Your task to perform on an android device: manage bookmarks in the chrome app Image 0: 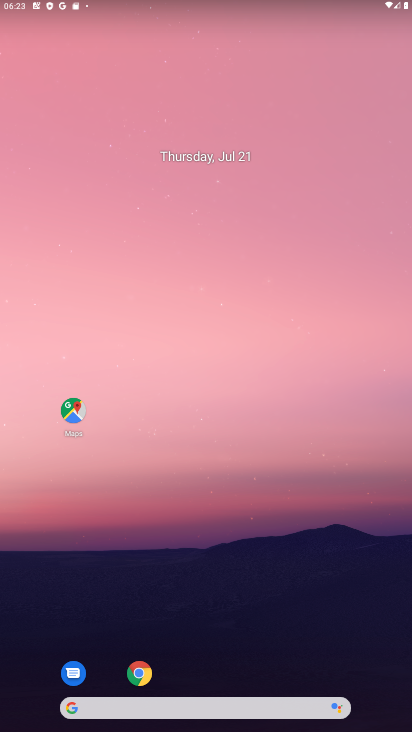
Step 0: click (130, 679)
Your task to perform on an android device: manage bookmarks in the chrome app Image 1: 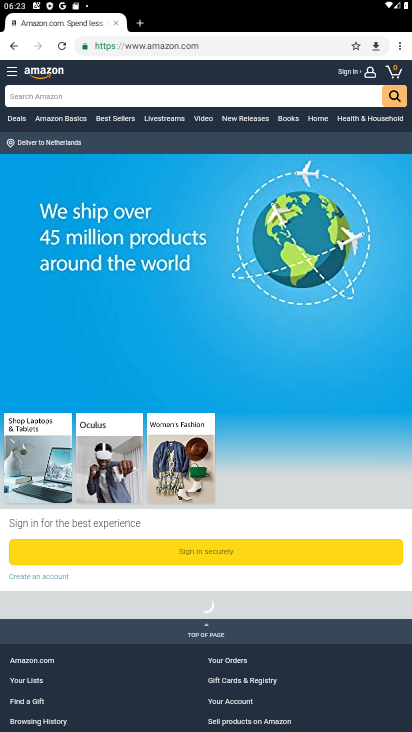
Step 1: click (399, 42)
Your task to perform on an android device: manage bookmarks in the chrome app Image 2: 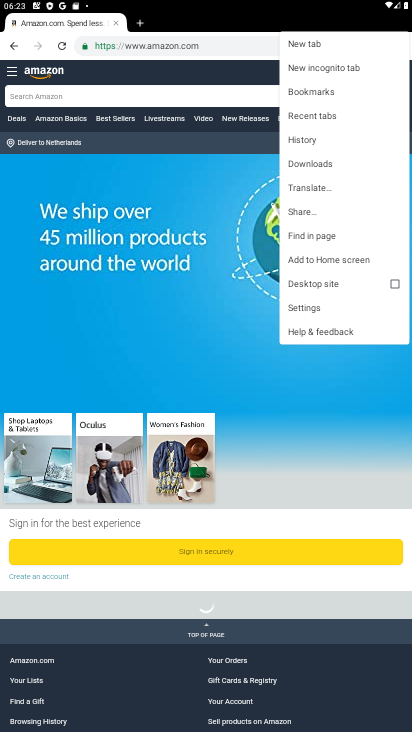
Step 2: click (326, 90)
Your task to perform on an android device: manage bookmarks in the chrome app Image 3: 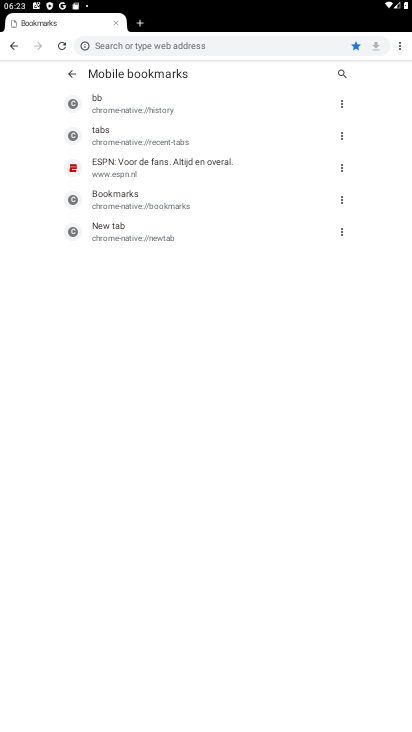
Step 3: task complete